Your task to perform on an android device: Open settings on Google Maps Image 0: 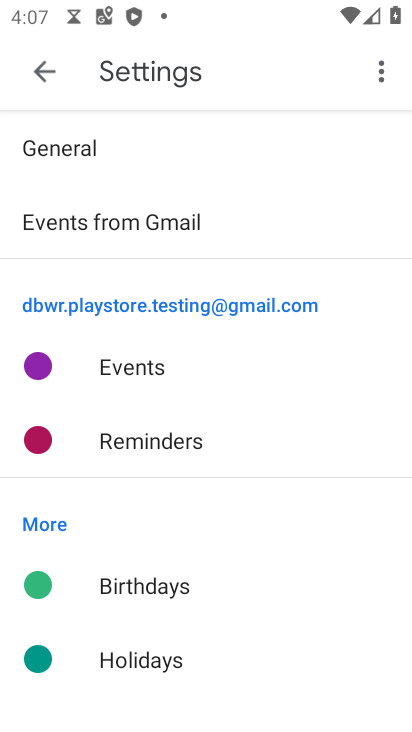
Step 0: press home button
Your task to perform on an android device: Open settings on Google Maps Image 1: 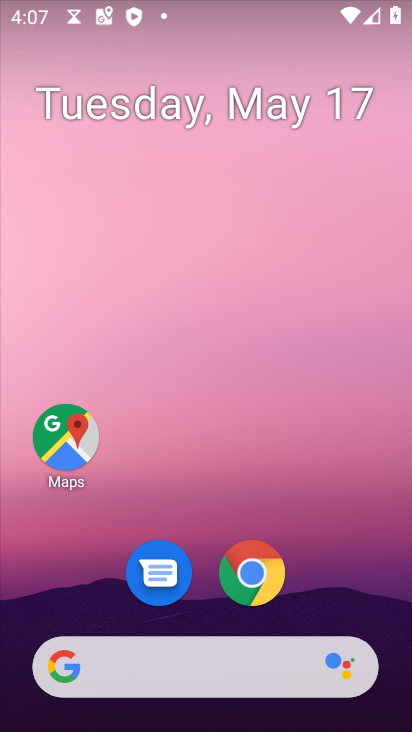
Step 1: drag from (325, 589) to (206, 187)
Your task to perform on an android device: Open settings on Google Maps Image 2: 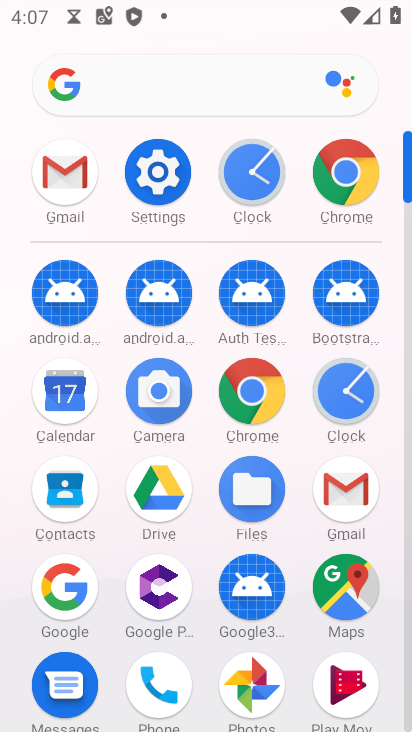
Step 2: click (356, 590)
Your task to perform on an android device: Open settings on Google Maps Image 3: 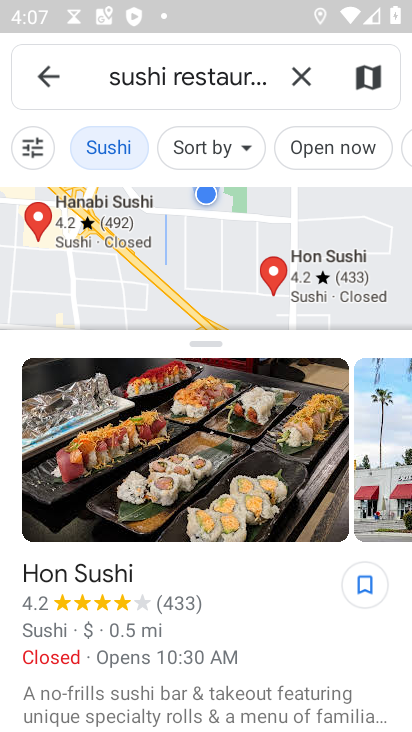
Step 3: click (42, 75)
Your task to perform on an android device: Open settings on Google Maps Image 4: 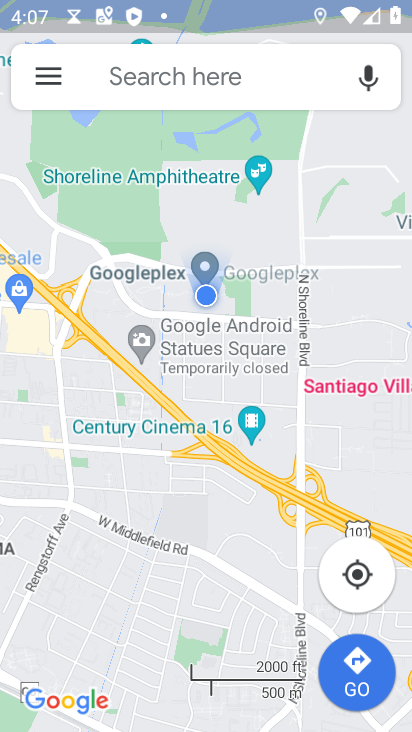
Step 4: click (42, 75)
Your task to perform on an android device: Open settings on Google Maps Image 5: 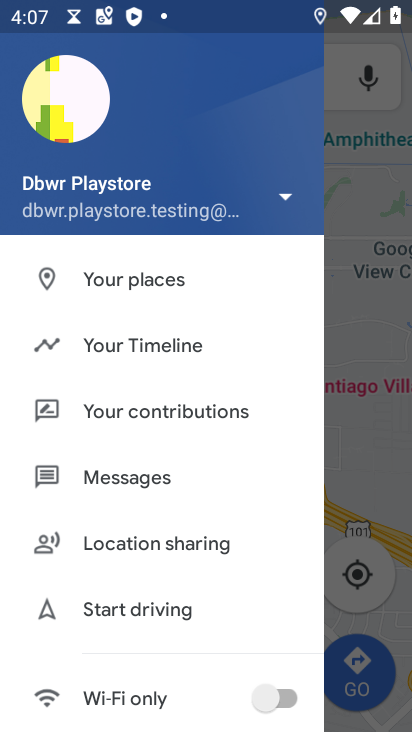
Step 5: drag from (223, 708) to (36, 21)
Your task to perform on an android device: Open settings on Google Maps Image 6: 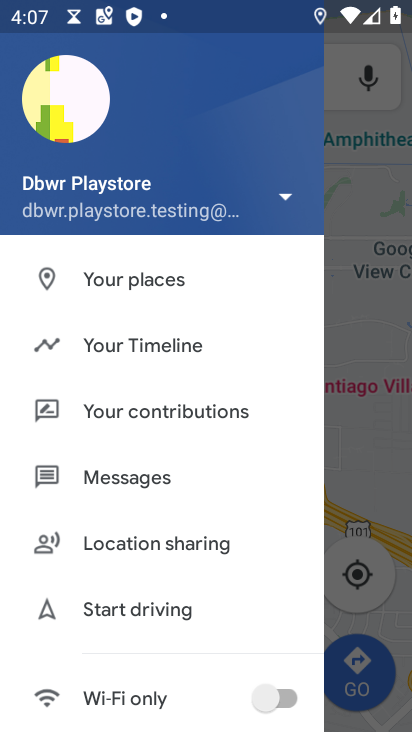
Step 6: drag from (165, 654) to (242, 46)
Your task to perform on an android device: Open settings on Google Maps Image 7: 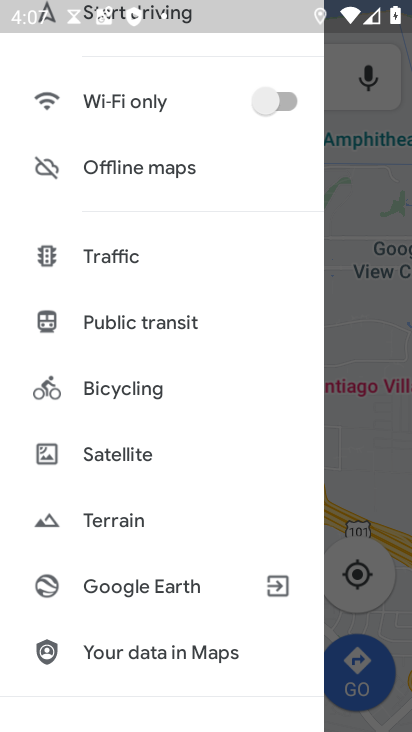
Step 7: drag from (152, 683) to (154, 216)
Your task to perform on an android device: Open settings on Google Maps Image 8: 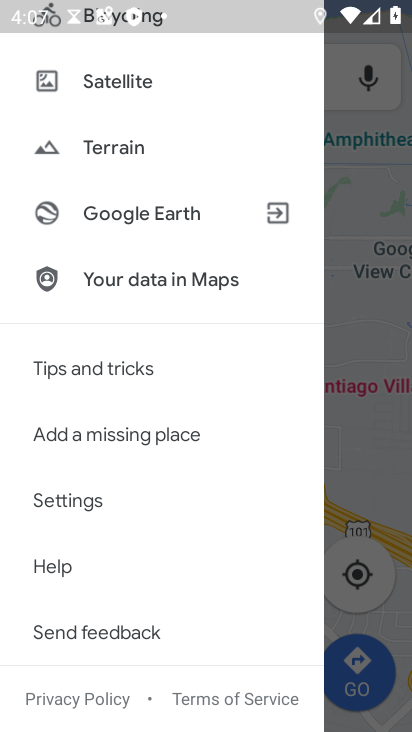
Step 8: click (138, 527)
Your task to perform on an android device: Open settings on Google Maps Image 9: 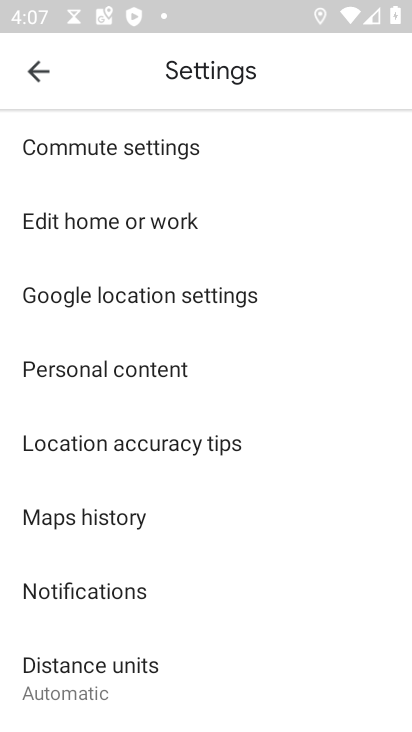
Step 9: task complete